Your task to perform on an android device: change text size in settings app Image 0: 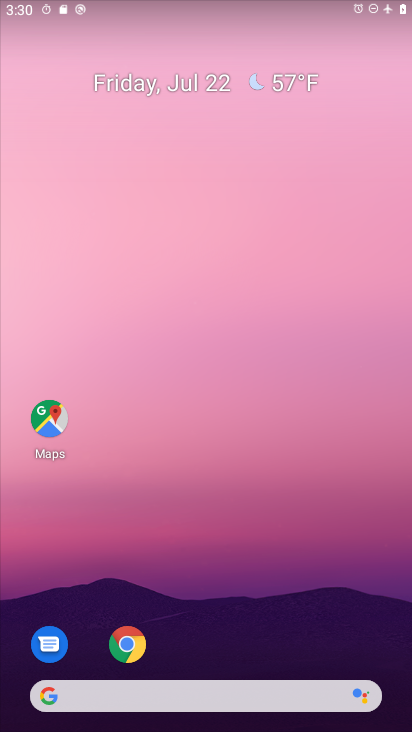
Step 0: drag from (206, 596) to (210, 157)
Your task to perform on an android device: change text size in settings app Image 1: 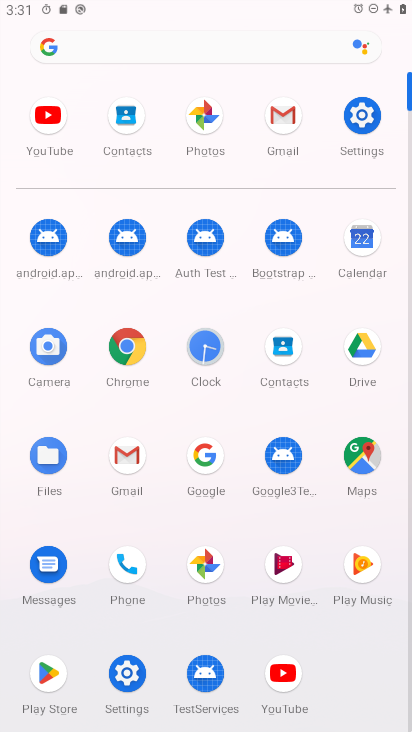
Step 1: click (346, 133)
Your task to perform on an android device: change text size in settings app Image 2: 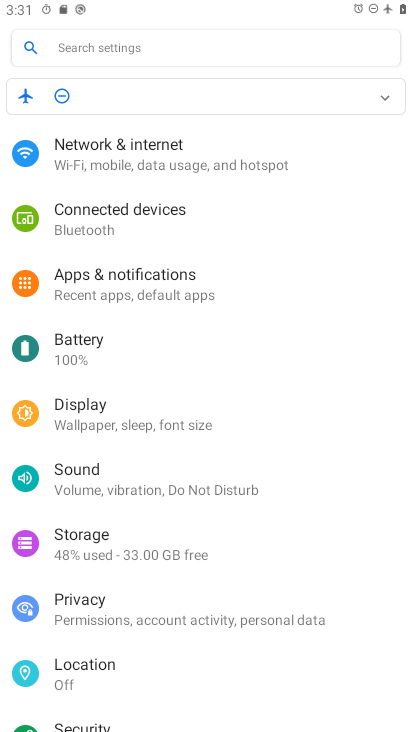
Step 2: click (152, 430)
Your task to perform on an android device: change text size in settings app Image 3: 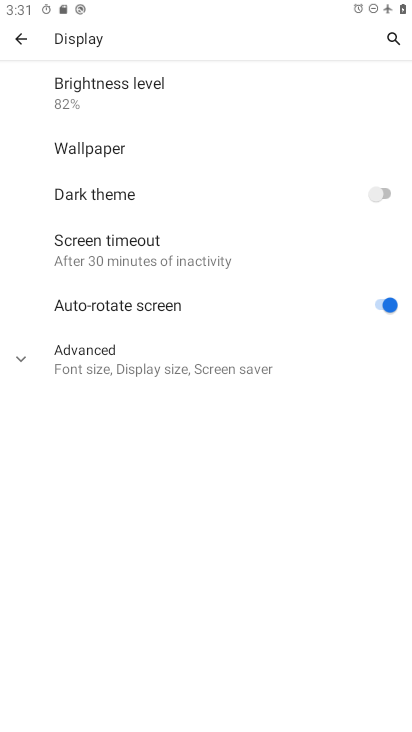
Step 3: click (111, 356)
Your task to perform on an android device: change text size in settings app Image 4: 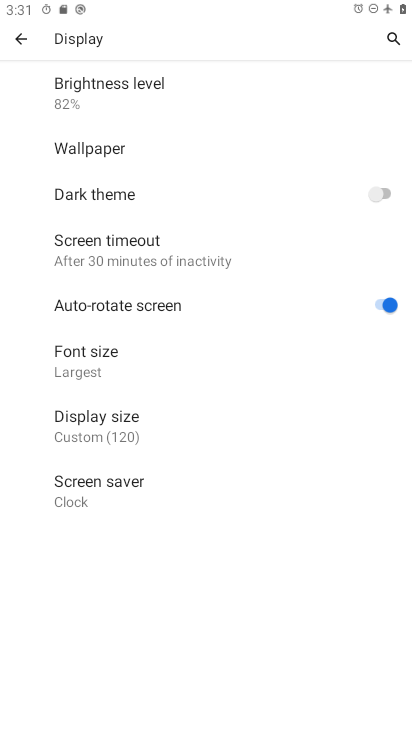
Step 4: click (113, 371)
Your task to perform on an android device: change text size in settings app Image 5: 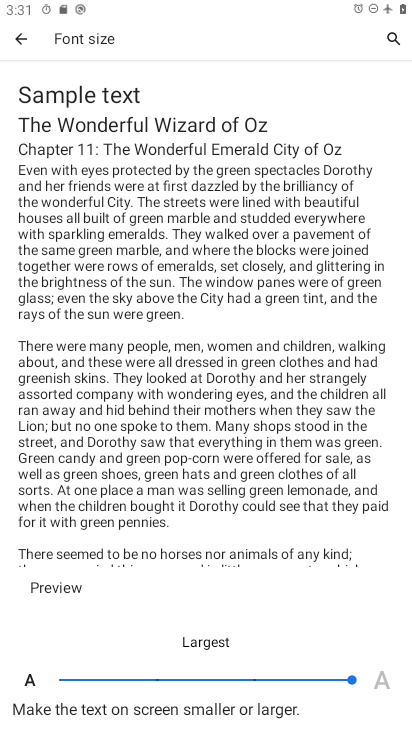
Step 5: click (277, 688)
Your task to perform on an android device: change text size in settings app Image 6: 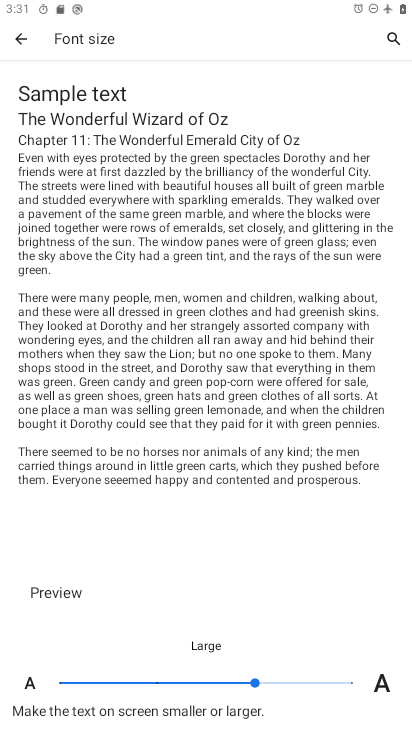
Step 6: click (265, 681)
Your task to perform on an android device: change text size in settings app Image 7: 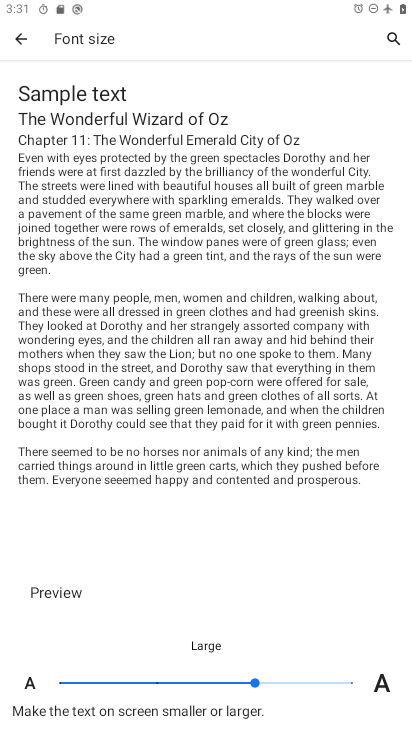
Step 7: task complete